Your task to perform on an android device: Search for lenovo thinkpad on bestbuy.com, select the first entry, and add it to the cart. Image 0: 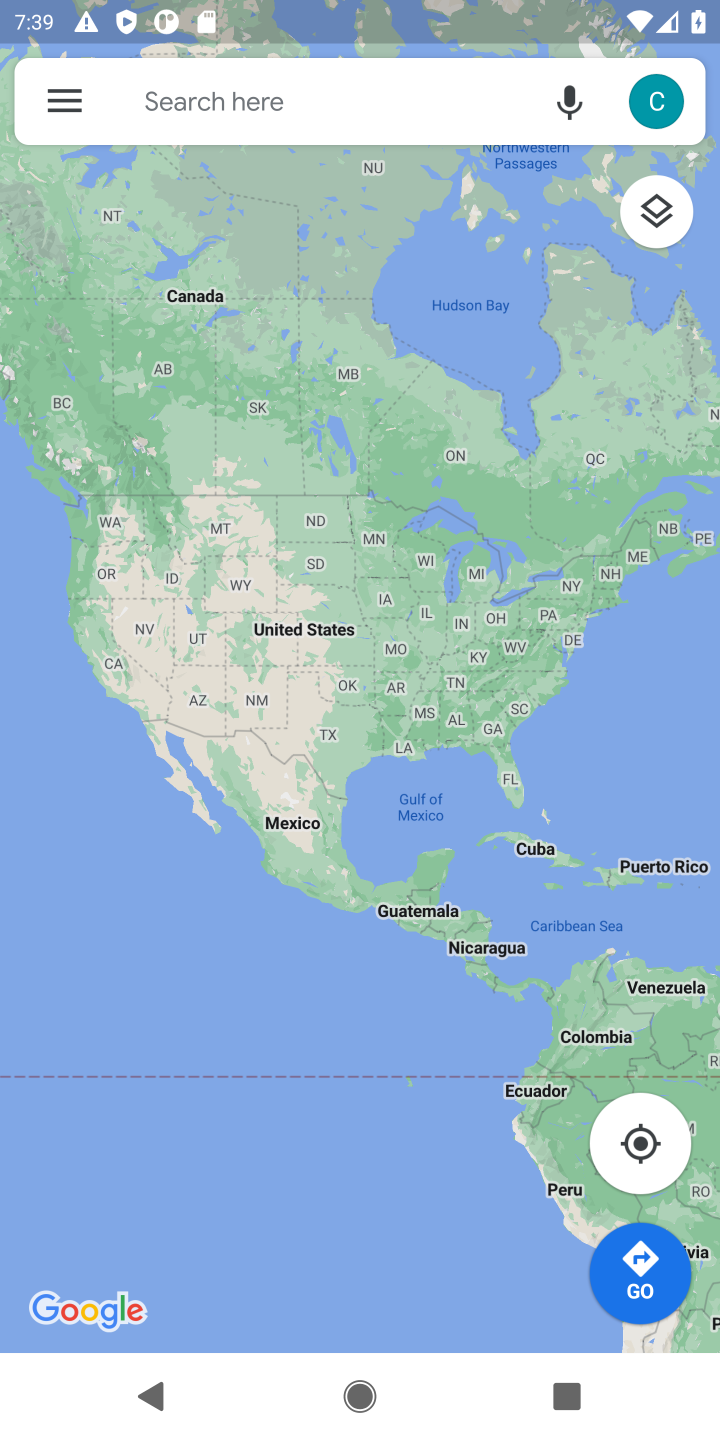
Step 0: task complete